Your task to perform on an android device: open app "Google Sheets" Image 0: 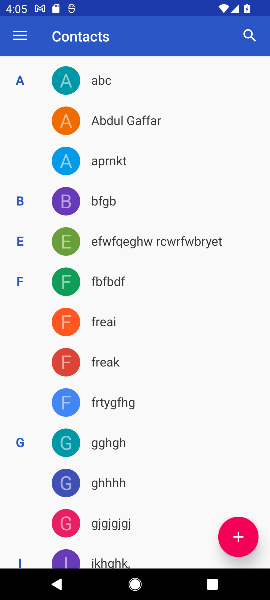
Step 0: press home button
Your task to perform on an android device: open app "Google Sheets" Image 1: 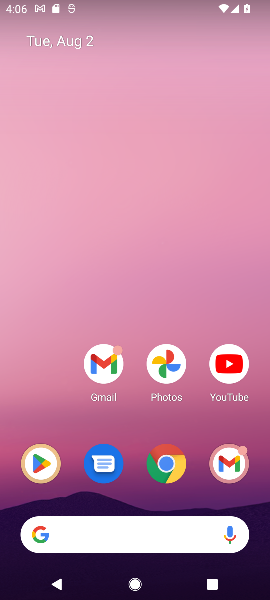
Step 1: click (37, 469)
Your task to perform on an android device: open app "Google Sheets" Image 2: 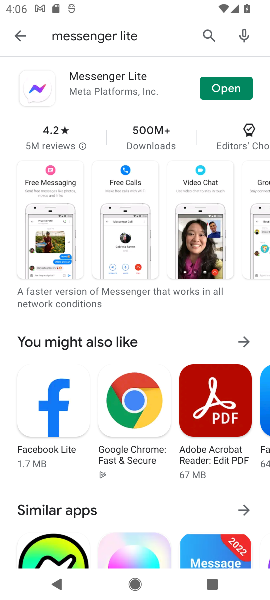
Step 2: click (209, 33)
Your task to perform on an android device: open app "Google Sheets" Image 3: 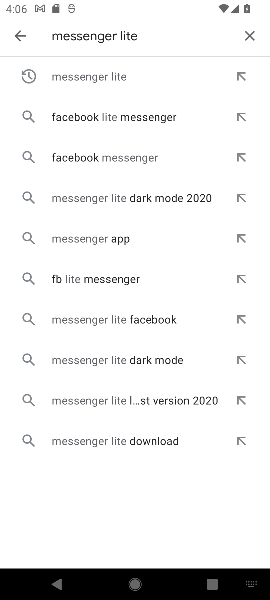
Step 3: click (251, 30)
Your task to perform on an android device: open app "Google Sheets" Image 4: 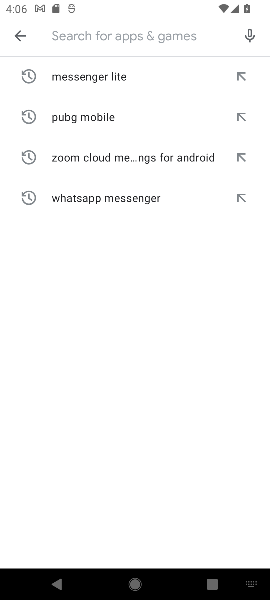
Step 4: type "Google Sheets"
Your task to perform on an android device: open app "Google Sheets" Image 5: 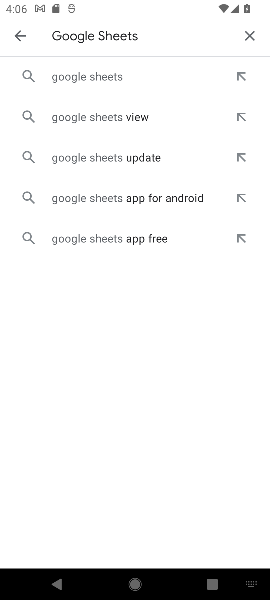
Step 5: click (97, 79)
Your task to perform on an android device: open app "Google Sheets" Image 6: 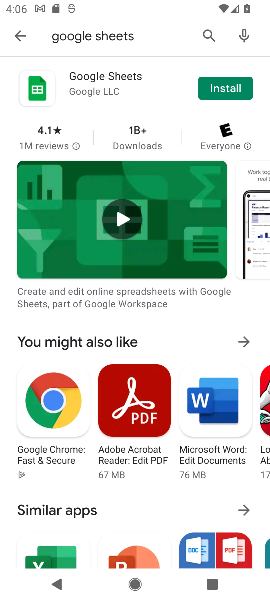
Step 6: task complete